Your task to perform on an android device: Search for pizza restaurants on Maps Image 0: 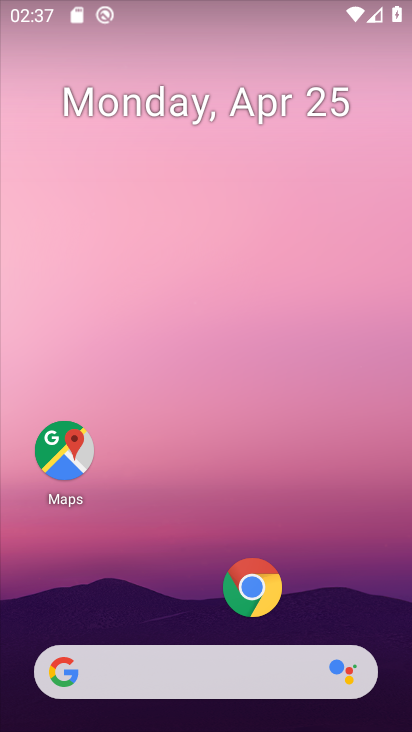
Step 0: click (65, 446)
Your task to perform on an android device: Search for pizza restaurants on Maps Image 1: 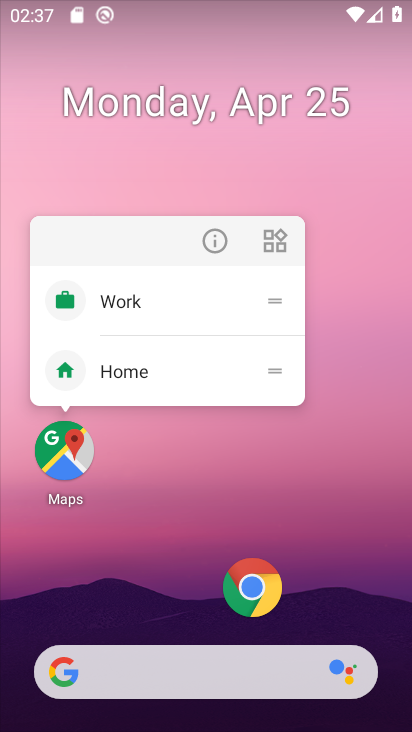
Step 1: click (65, 446)
Your task to perform on an android device: Search for pizza restaurants on Maps Image 2: 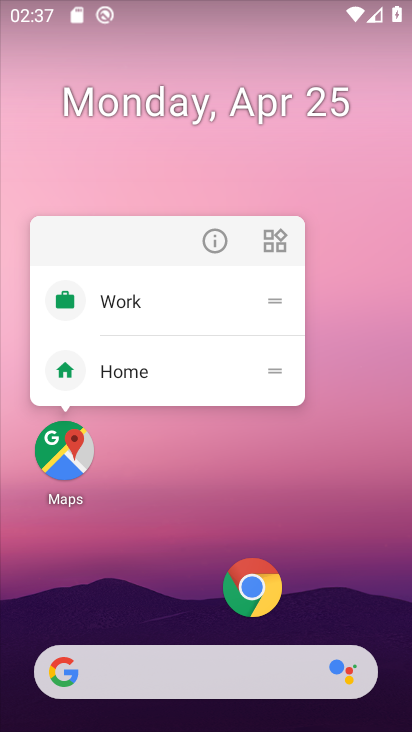
Step 2: click (174, 616)
Your task to perform on an android device: Search for pizza restaurants on Maps Image 3: 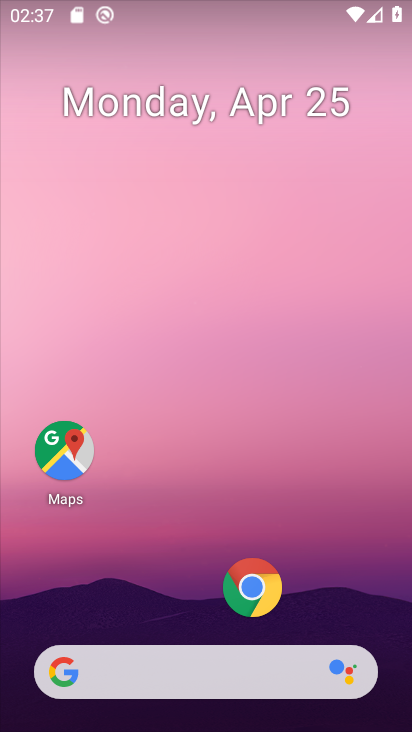
Step 3: drag from (216, 332) to (244, 31)
Your task to perform on an android device: Search for pizza restaurants on Maps Image 4: 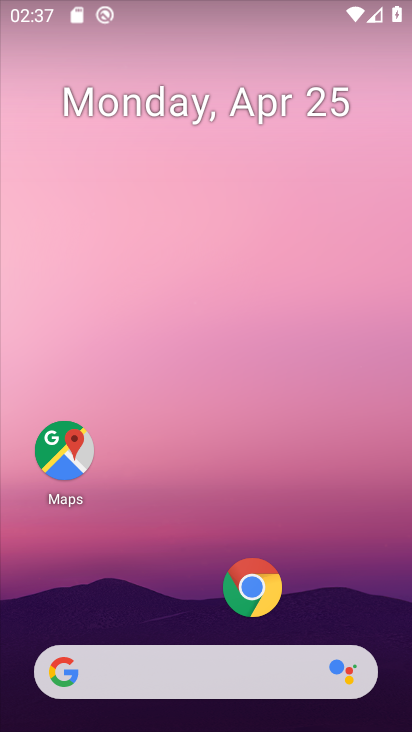
Step 4: drag from (301, 563) to (298, 1)
Your task to perform on an android device: Search for pizza restaurants on Maps Image 5: 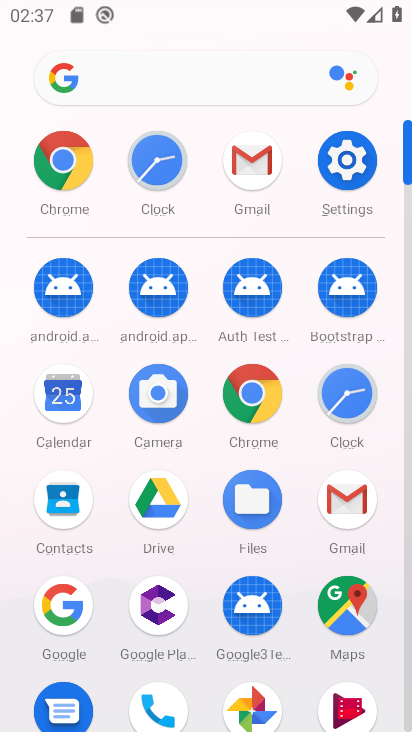
Step 5: click (348, 598)
Your task to perform on an android device: Search for pizza restaurants on Maps Image 6: 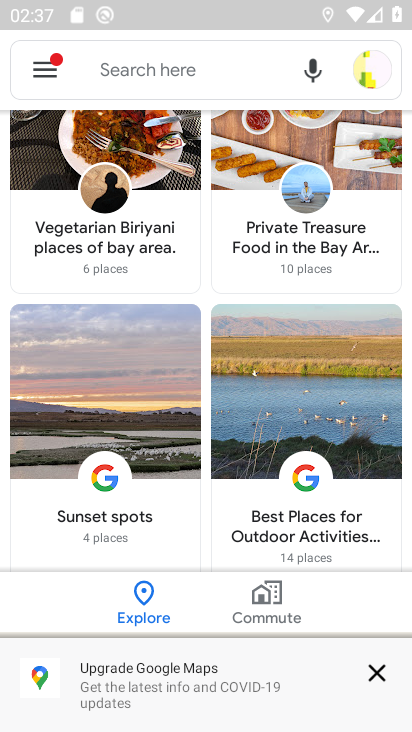
Step 6: click (378, 666)
Your task to perform on an android device: Search for pizza restaurants on Maps Image 7: 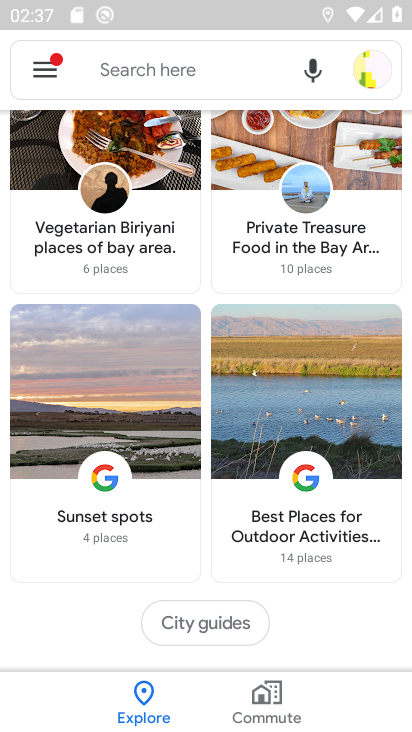
Step 7: click (139, 62)
Your task to perform on an android device: Search for pizza restaurants on Maps Image 8: 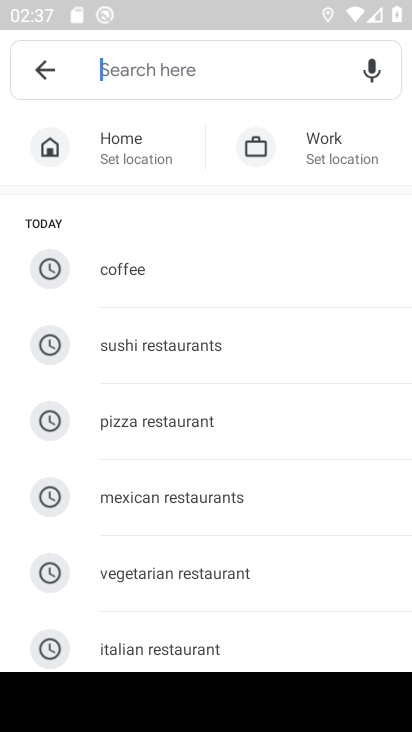
Step 8: type "pizza"
Your task to perform on an android device: Search for pizza restaurants on Maps Image 9: 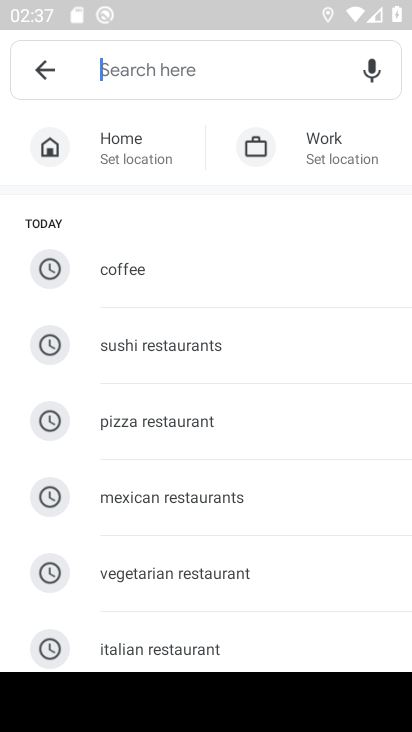
Step 9: click (191, 436)
Your task to perform on an android device: Search for pizza restaurants on Maps Image 10: 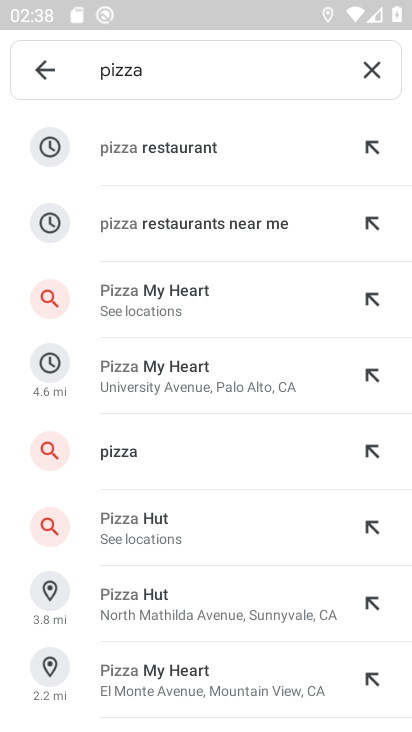
Step 10: click (224, 143)
Your task to perform on an android device: Search for pizza restaurants on Maps Image 11: 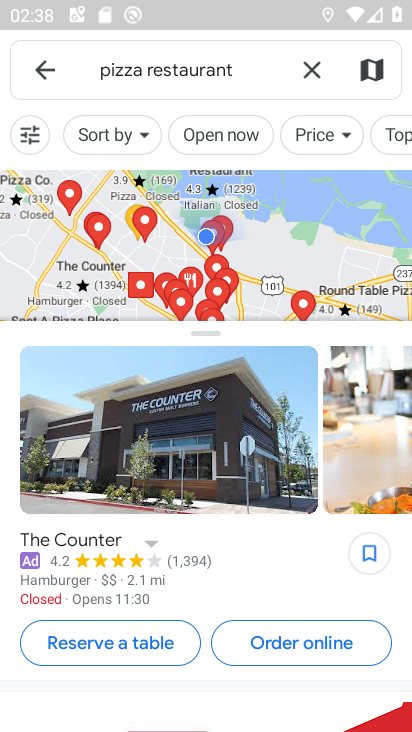
Step 11: task complete